Your task to perform on an android device: turn off smart reply in the gmail app Image 0: 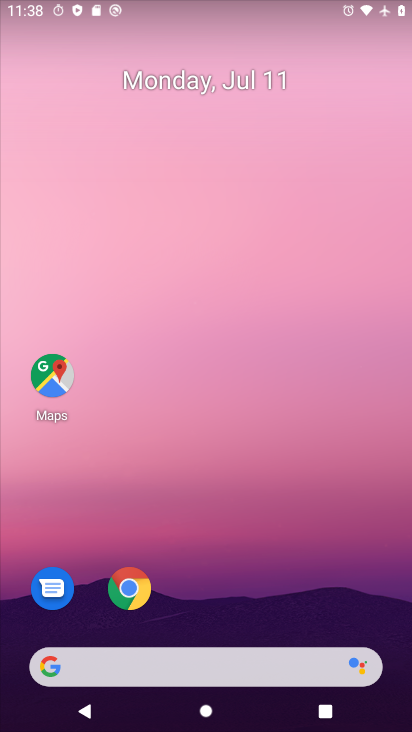
Step 0: drag from (135, 666) to (380, 66)
Your task to perform on an android device: turn off smart reply in the gmail app Image 1: 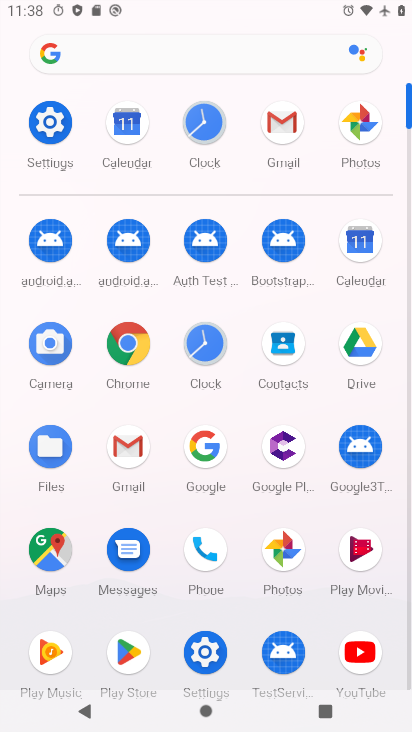
Step 1: click (286, 134)
Your task to perform on an android device: turn off smart reply in the gmail app Image 2: 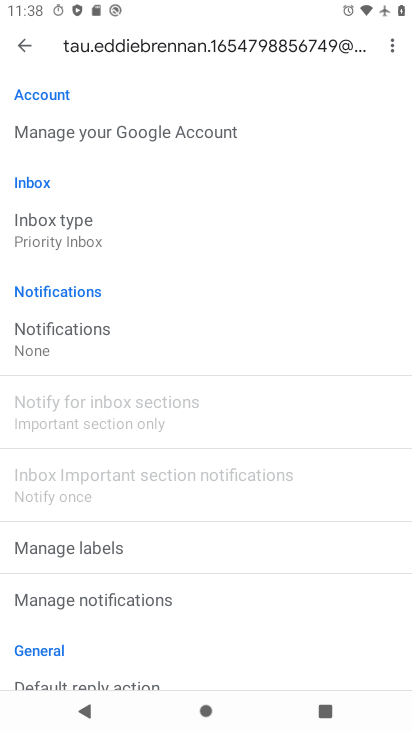
Step 2: drag from (223, 544) to (411, 269)
Your task to perform on an android device: turn off smart reply in the gmail app Image 3: 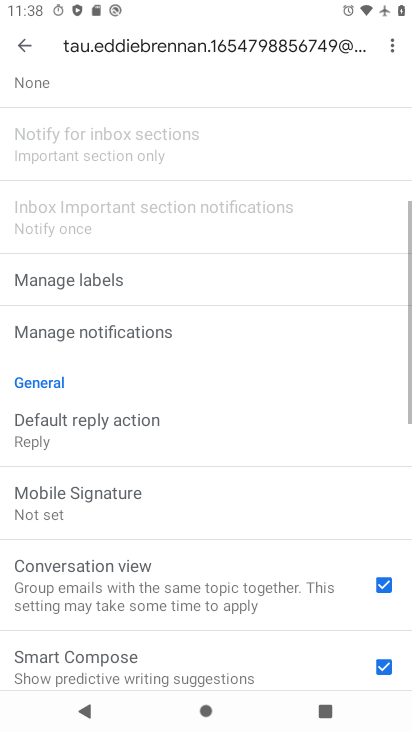
Step 3: drag from (297, 646) to (410, 430)
Your task to perform on an android device: turn off smart reply in the gmail app Image 4: 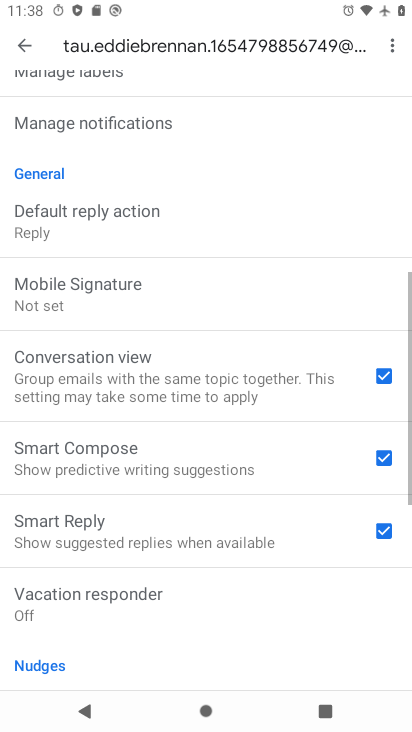
Step 4: click (386, 429)
Your task to perform on an android device: turn off smart reply in the gmail app Image 5: 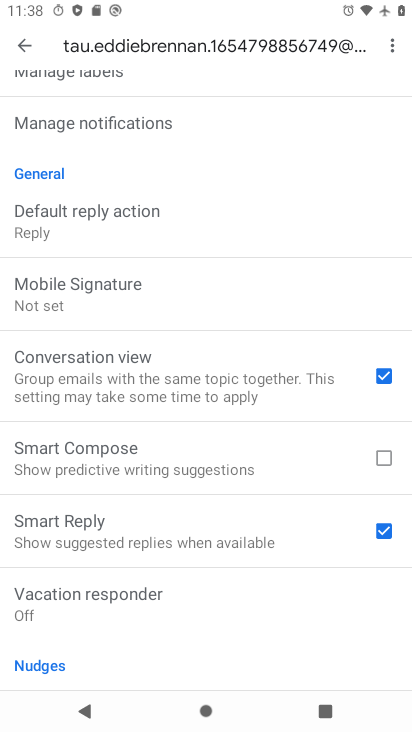
Step 5: click (388, 454)
Your task to perform on an android device: turn off smart reply in the gmail app Image 6: 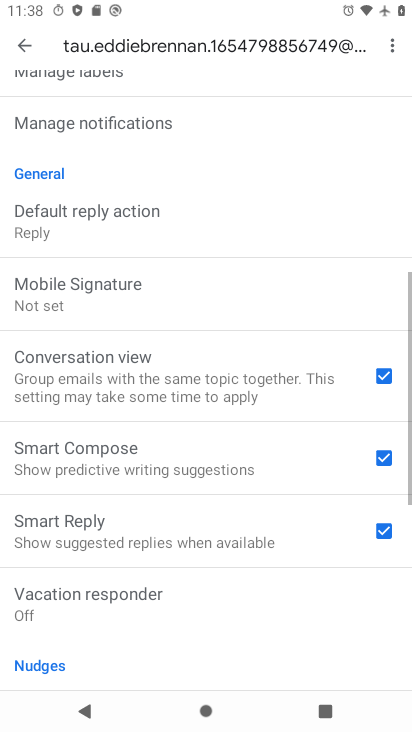
Step 6: click (391, 533)
Your task to perform on an android device: turn off smart reply in the gmail app Image 7: 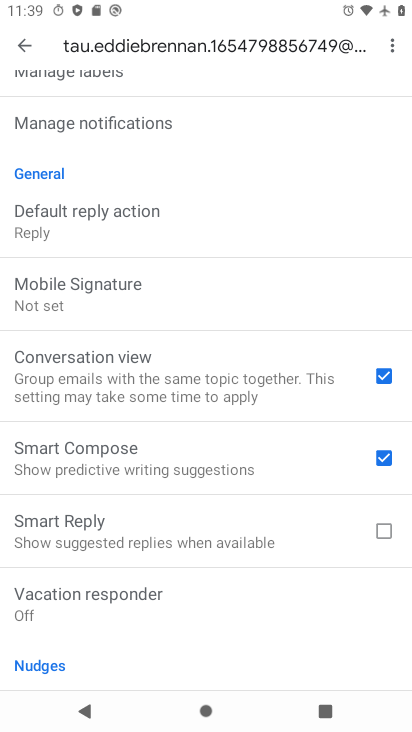
Step 7: task complete